Your task to perform on an android device: Open my contact list Image 0: 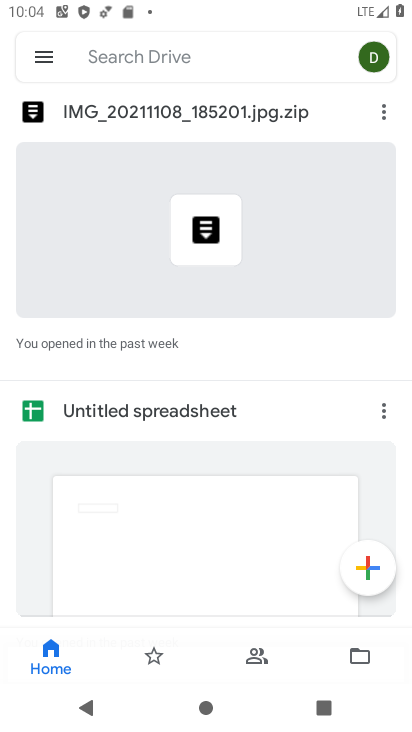
Step 0: press back button
Your task to perform on an android device: Open my contact list Image 1: 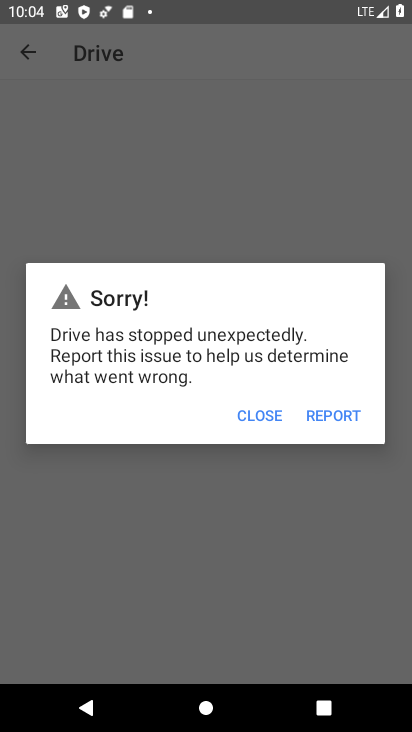
Step 1: press back button
Your task to perform on an android device: Open my contact list Image 2: 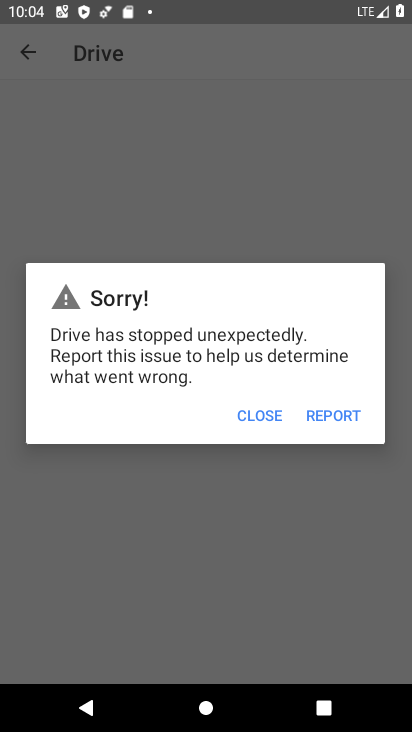
Step 2: press home button
Your task to perform on an android device: Open my contact list Image 3: 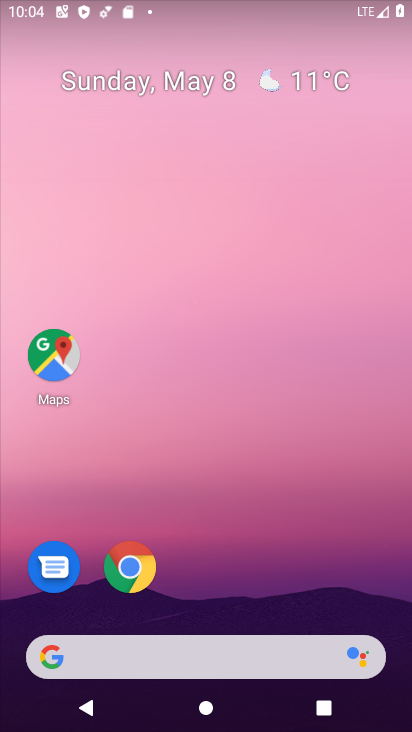
Step 3: drag from (213, 574) to (316, 8)
Your task to perform on an android device: Open my contact list Image 4: 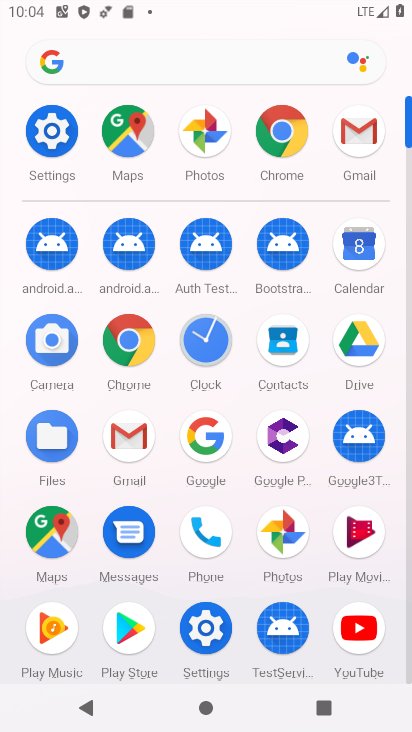
Step 4: click (279, 328)
Your task to perform on an android device: Open my contact list Image 5: 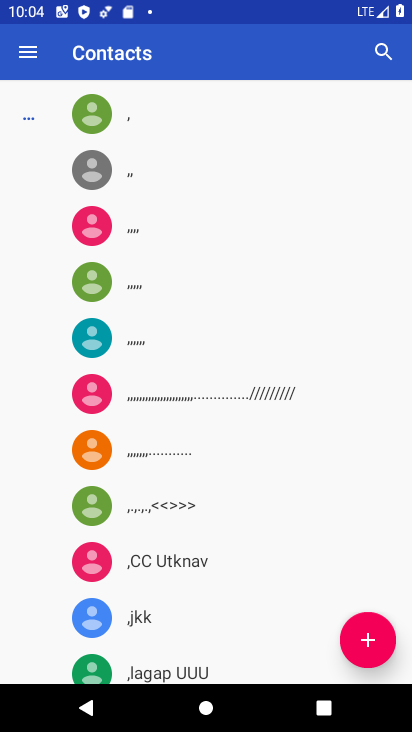
Step 5: task complete